Your task to perform on an android device: move an email to a new category in the gmail app Image 0: 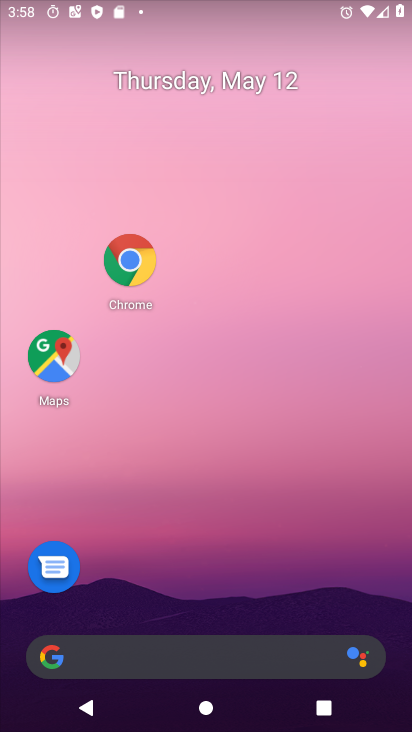
Step 0: drag from (189, 545) to (205, 216)
Your task to perform on an android device: move an email to a new category in the gmail app Image 1: 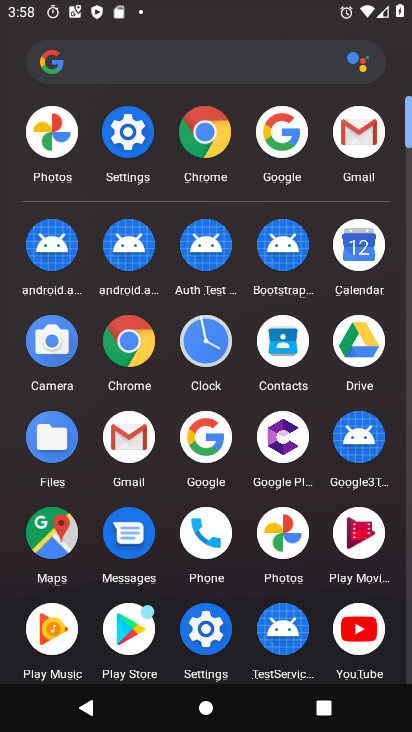
Step 1: click (136, 446)
Your task to perform on an android device: move an email to a new category in the gmail app Image 2: 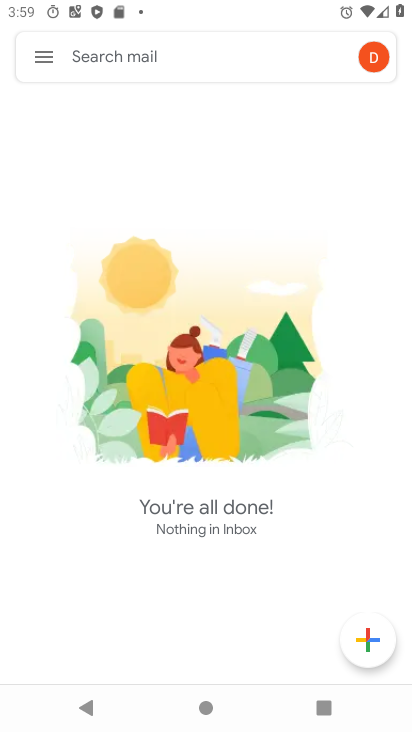
Step 2: task complete